Your task to perform on an android device: open a bookmark in the chrome app Image 0: 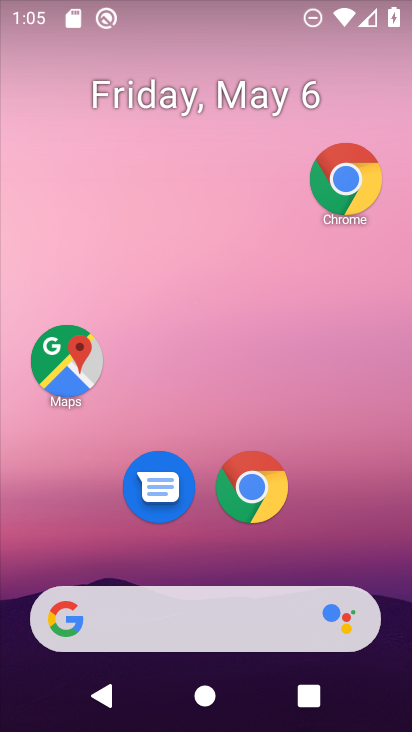
Step 0: click (346, 197)
Your task to perform on an android device: open a bookmark in the chrome app Image 1: 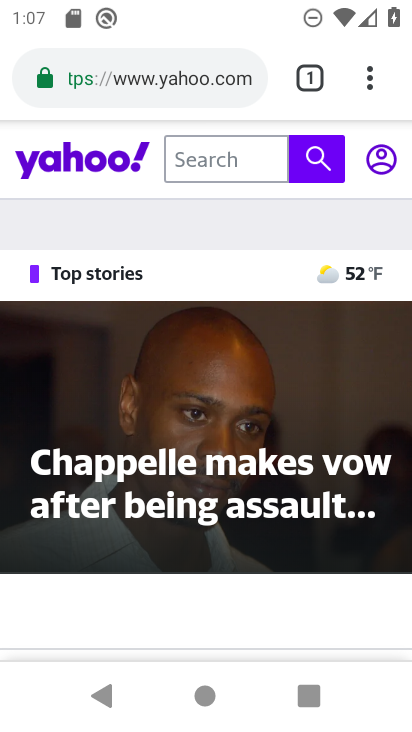
Step 1: click (357, 86)
Your task to perform on an android device: open a bookmark in the chrome app Image 2: 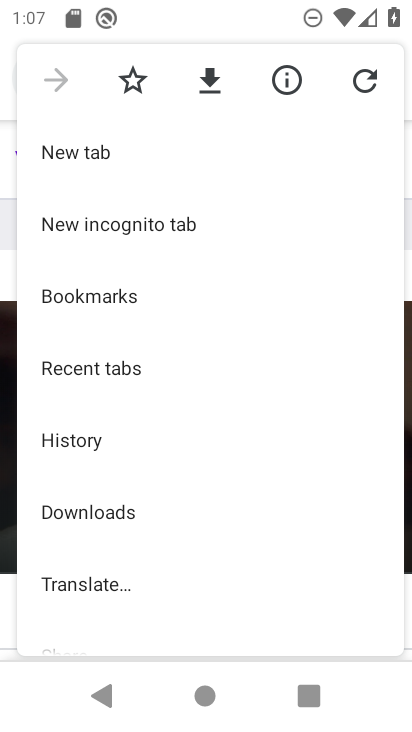
Step 2: click (155, 292)
Your task to perform on an android device: open a bookmark in the chrome app Image 3: 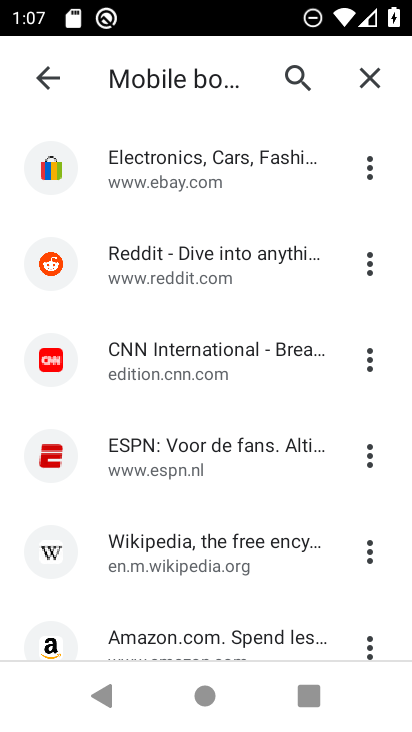
Step 3: click (155, 280)
Your task to perform on an android device: open a bookmark in the chrome app Image 4: 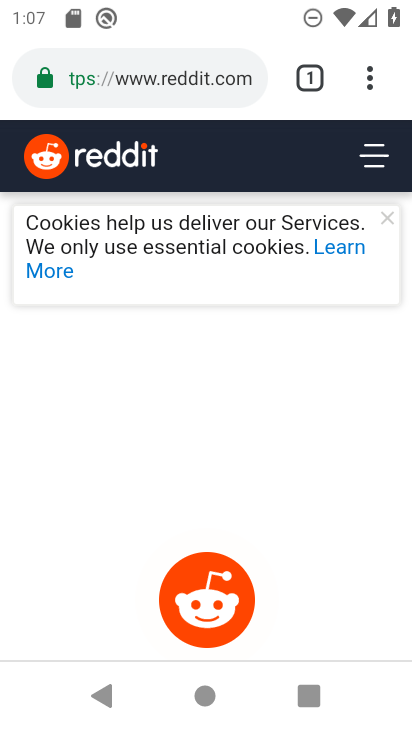
Step 4: task complete